Your task to perform on an android device: see sites visited before in the chrome app Image 0: 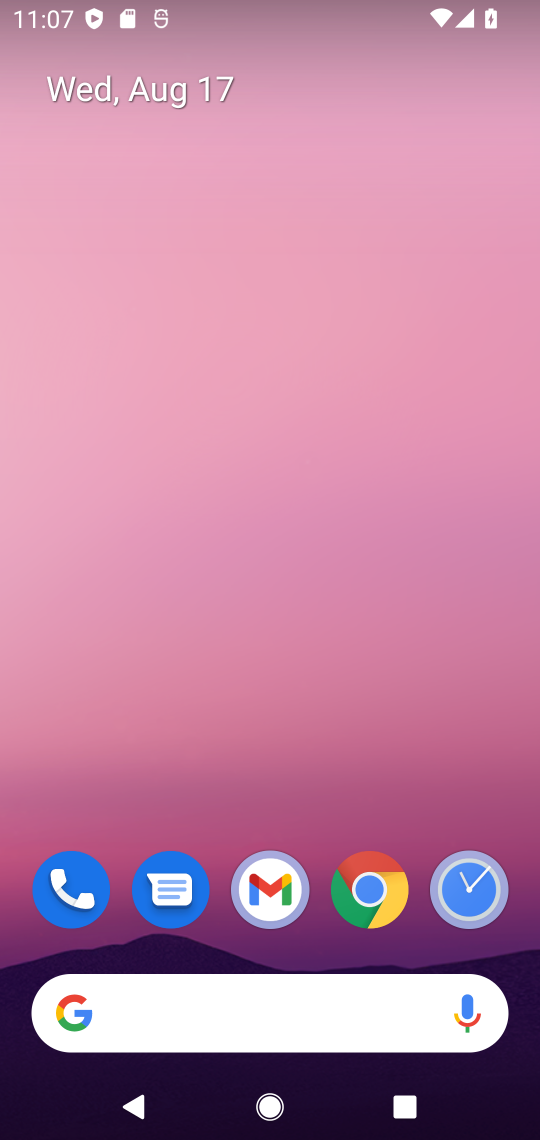
Step 0: click (371, 886)
Your task to perform on an android device: see sites visited before in the chrome app Image 1: 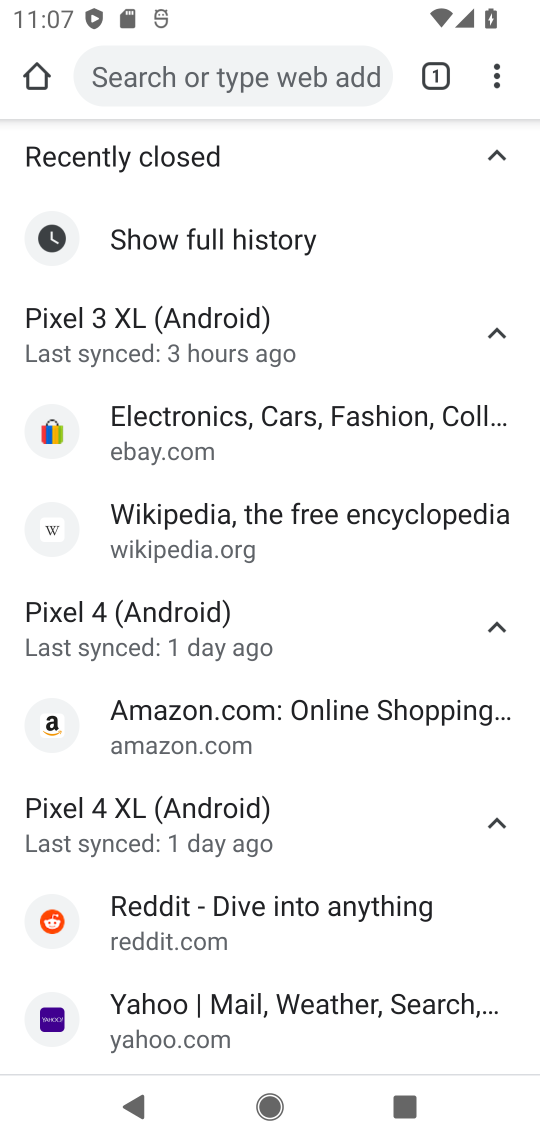
Step 1: task complete